Your task to perform on an android device: toggle pop-ups in chrome Image 0: 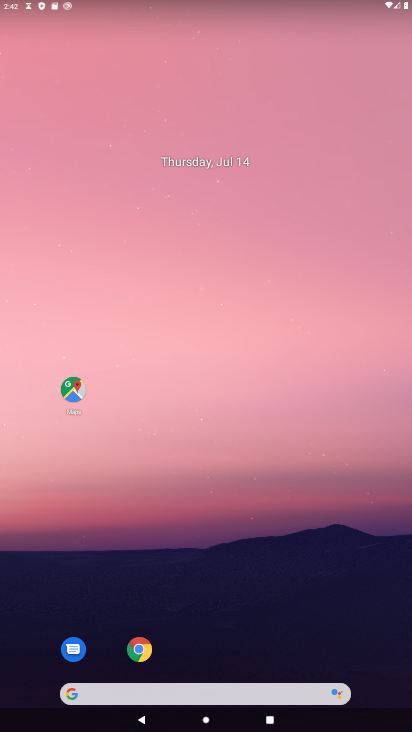
Step 0: drag from (216, 651) to (228, 179)
Your task to perform on an android device: toggle pop-ups in chrome Image 1: 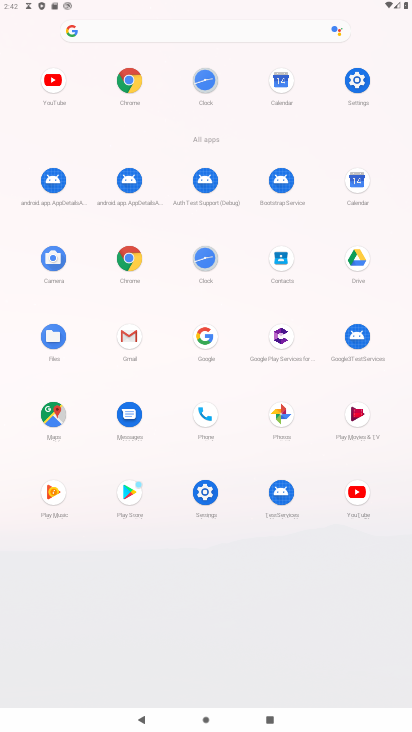
Step 1: click (134, 258)
Your task to perform on an android device: toggle pop-ups in chrome Image 2: 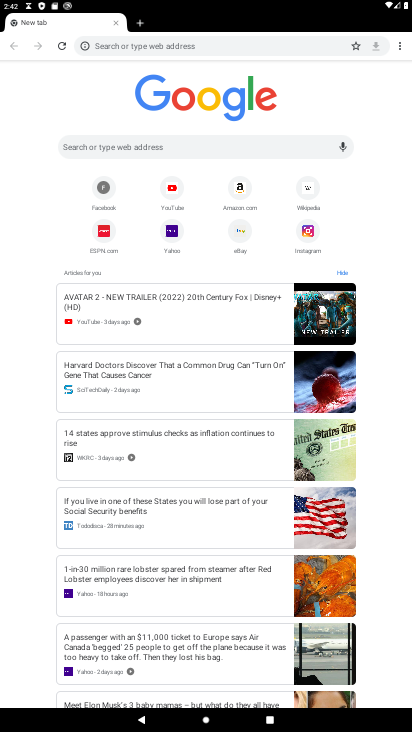
Step 2: click (400, 46)
Your task to perform on an android device: toggle pop-ups in chrome Image 3: 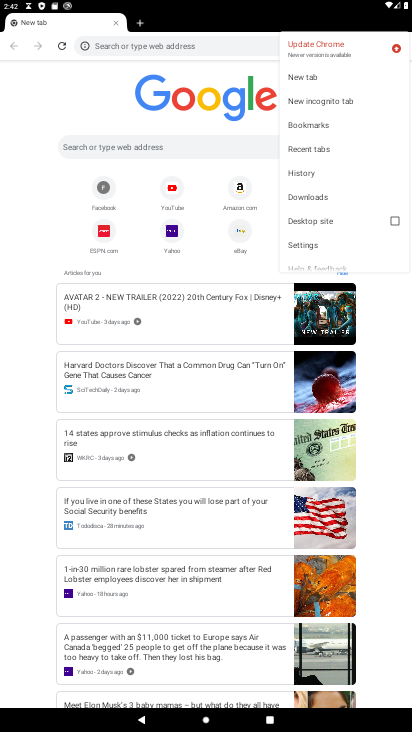
Step 3: click (308, 241)
Your task to perform on an android device: toggle pop-ups in chrome Image 4: 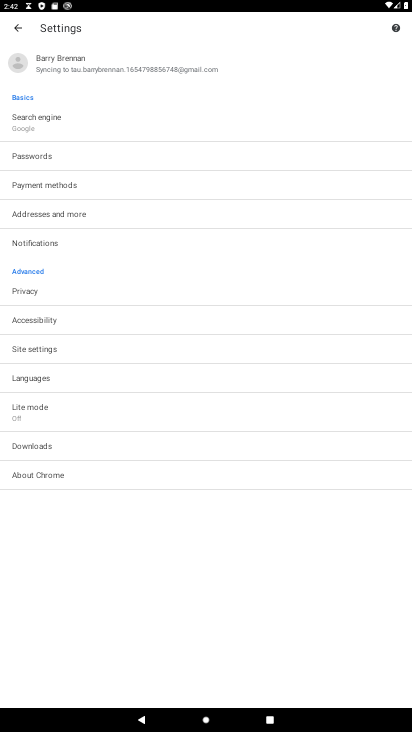
Step 4: click (39, 351)
Your task to perform on an android device: toggle pop-ups in chrome Image 5: 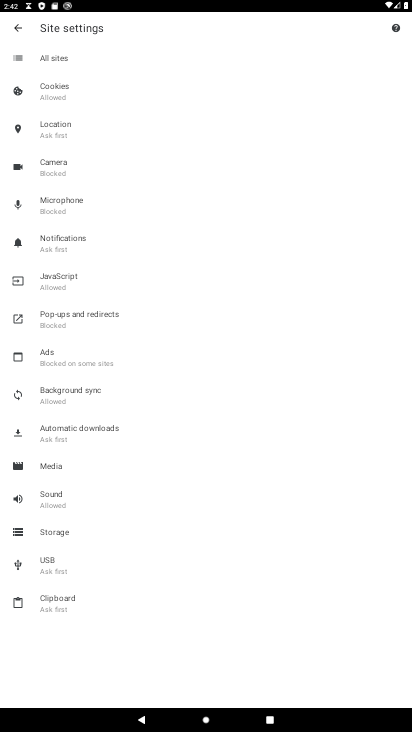
Step 5: click (97, 317)
Your task to perform on an android device: toggle pop-ups in chrome Image 6: 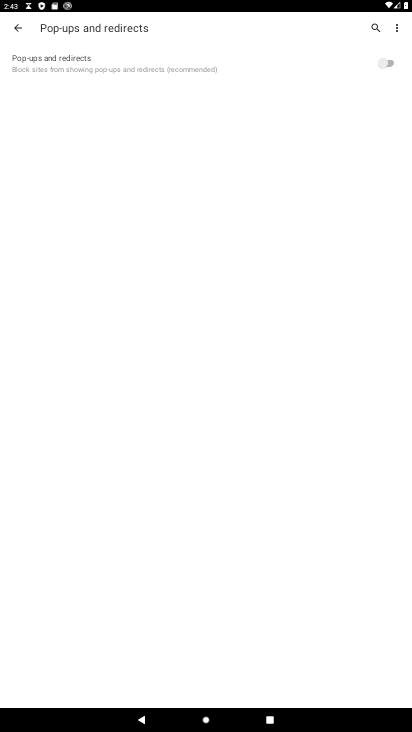
Step 6: click (388, 56)
Your task to perform on an android device: toggle pop-ups in chrome Image 7: 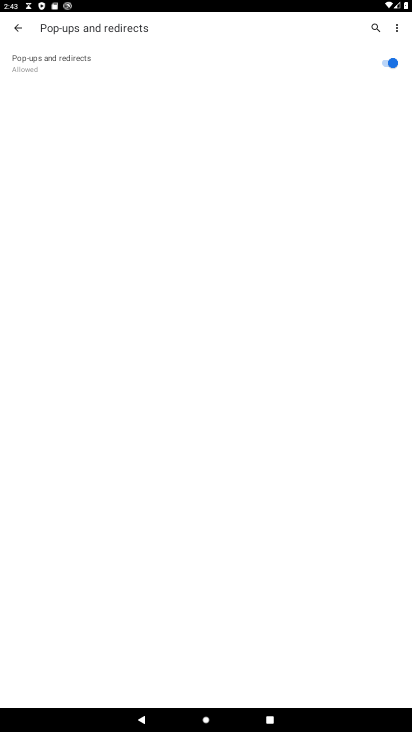
Step 7: task complete